Your task to perform on an android device: Open Chrome and go to settings Image 0: 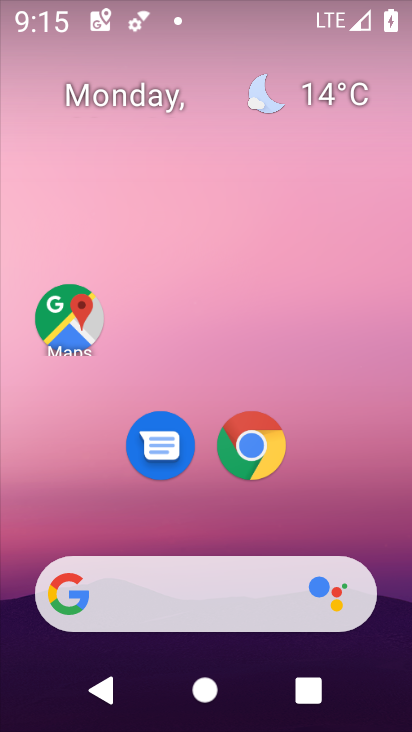
Step 0: press home button
Your task to perform on an android device: Open Chrome and go to settings Image 1: 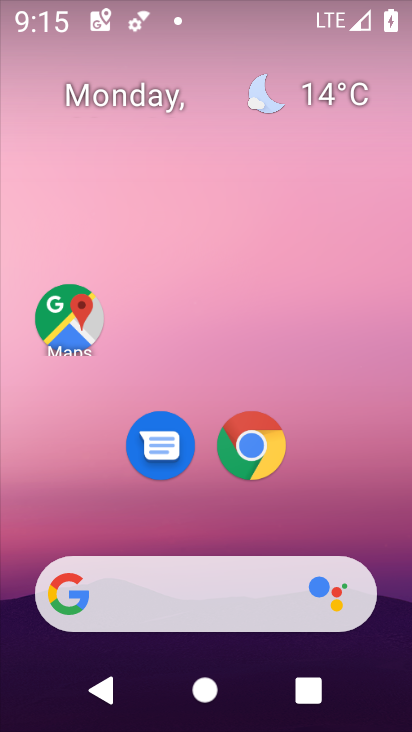
Step 1: press home button
Your task to perform on an android device: Open Chrome and go to settings Image 2: 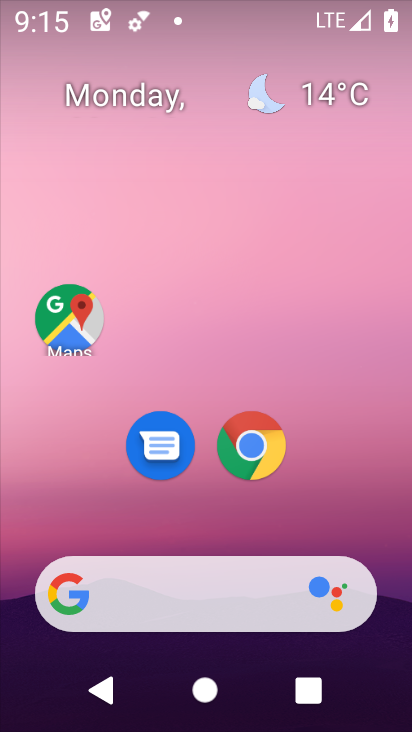
Step 2: drag from (211, 524) to (211, 10)
Your task to perform on an android device: Open Chrome and go to settings Image 3: 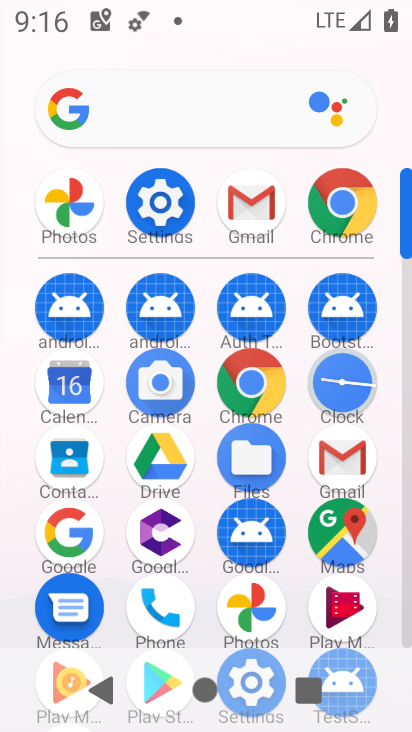
Step 3: click (254, 376)
Your task to perform on an android device: Open Chrome and go to settings Image 4: 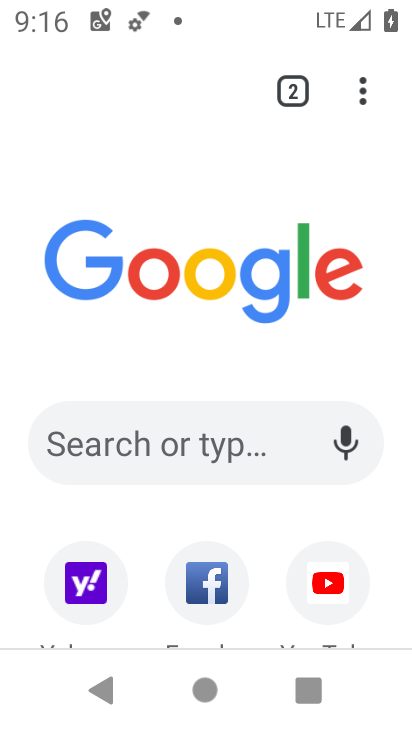
Step 4: click (359, 88)
Your task to perform on an android device: Open Chrome and go to settings Image 5: 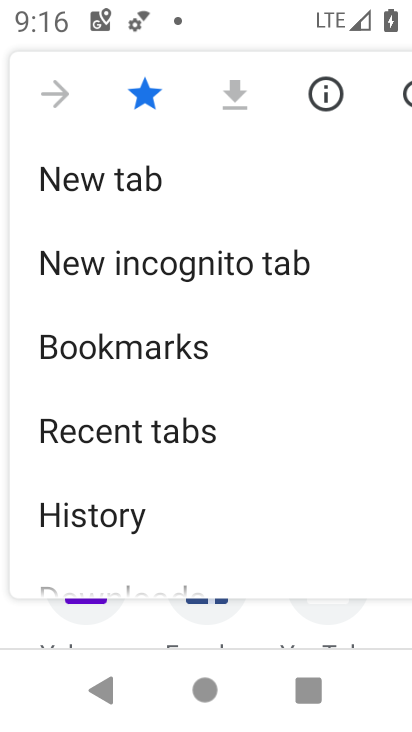
Step 5: drag from (175, 523) to (175, 45)
Your task to perform on an android device: Open Chrome and go to settings Image 6: 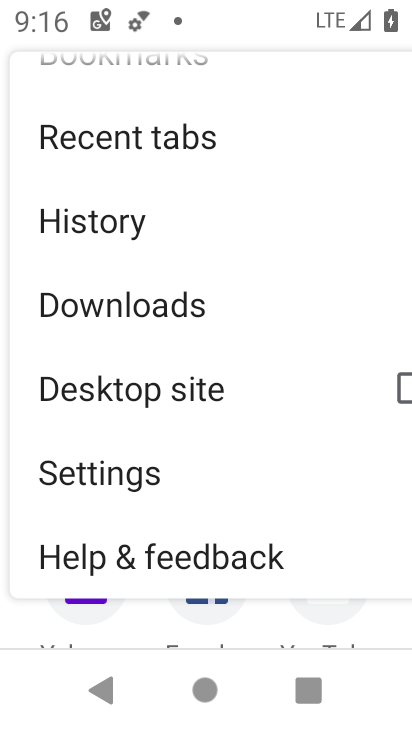
Step 6: click (172, 470)
Your task to perform on an android device: Open Chrome and go to settings Image 7: 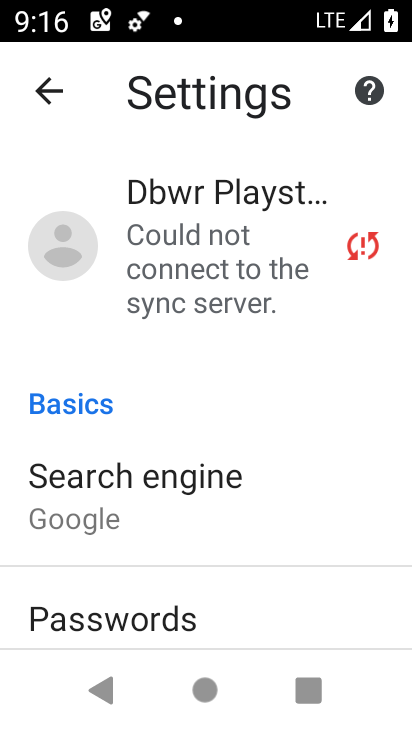
Step 7: task complete